Your task to perform on an android device: Open Google Chrome Image 0: 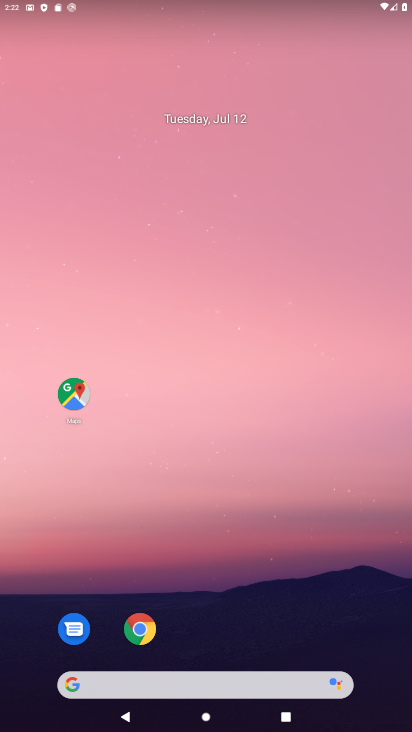
Step 0: click (142, 632)
Your task to perform on an android device: Open Google Chrome Image 1: 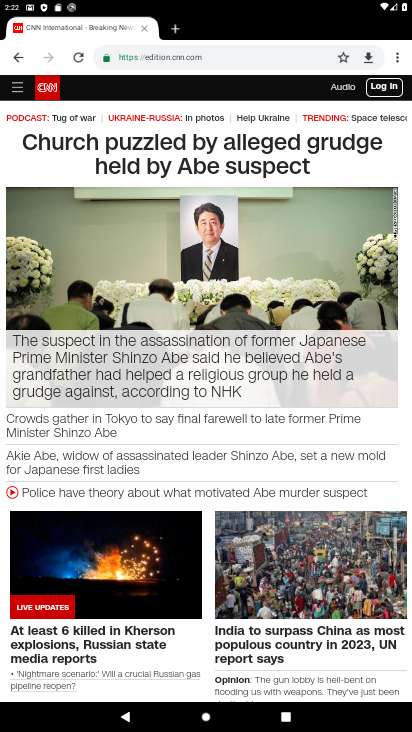
Step 1: task complete